Your task to perform on an android device: open device folders in google photos Image 0: 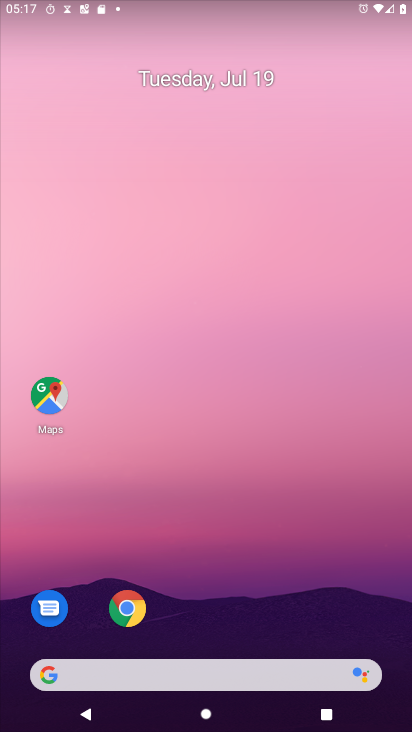
Step 0: drag from (236, 669) to (323, 214)
Your task to perform on an android device: open device folders in google photos Image 1: 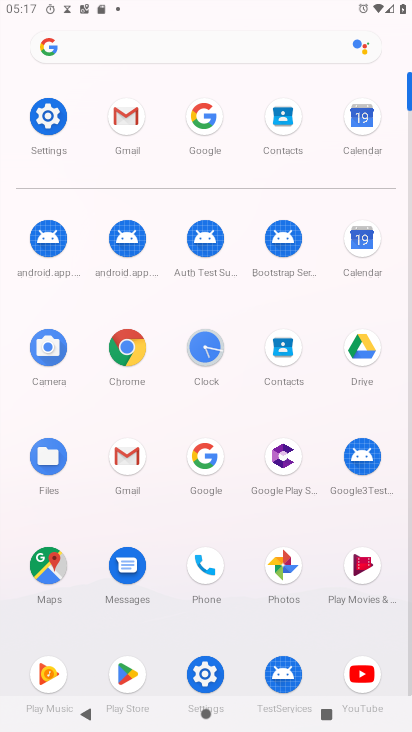
Step 1: click (283, 564)
Your task to perform on an android device: open device folders in google photos Image 2: 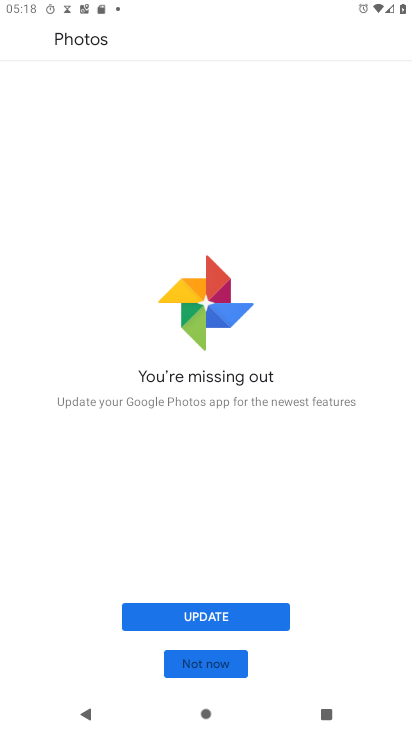
Step 2: click (201, 623)
Your task to perform on an android device: open device folders in google photos Image 3: 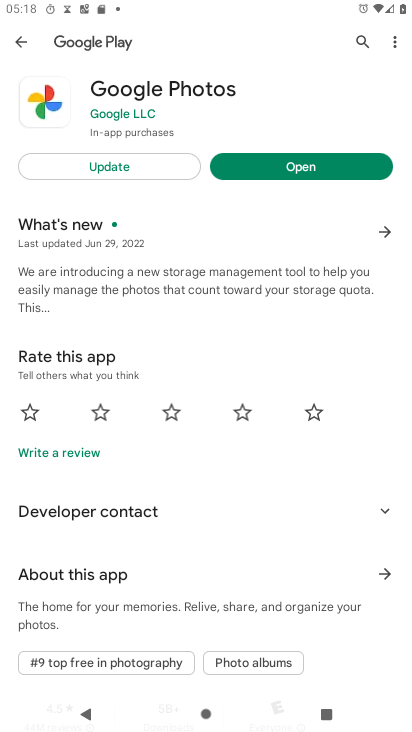
Step 3: click (114, 169)
Your task to perform on an android device: open device folders in google photos Image 4: 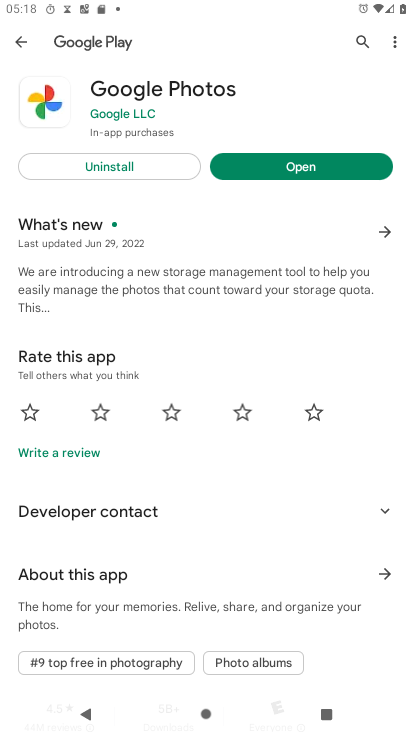
Step 4: click (301, 168)
Your task to perform on an android device: open device folders in google photos Image 5: 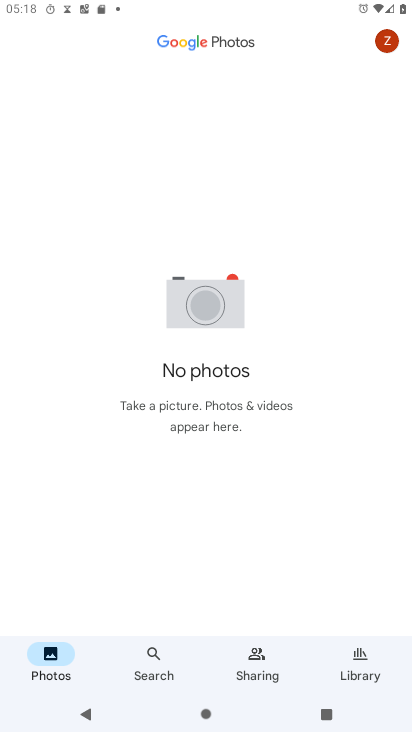
Step 5: click (389, 43)
Your task to perform on an android device: open device folders in google photos Image 6: 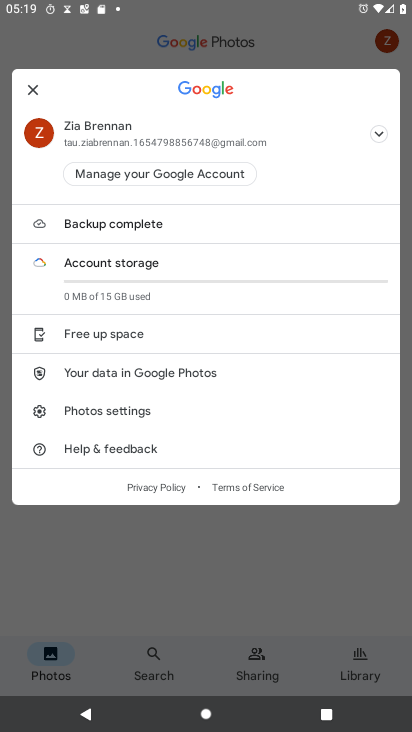
Step 6: click (96, 408)
Your task to perform on an android device: open device folders in google photos Image 7: 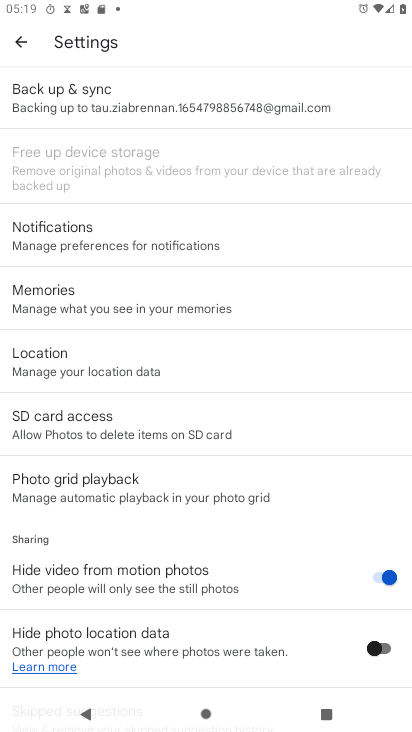
Step 7: drag from (194, 516) to (282, 357)
Your task to perform on an android device: open device folders in google photos Image 8: 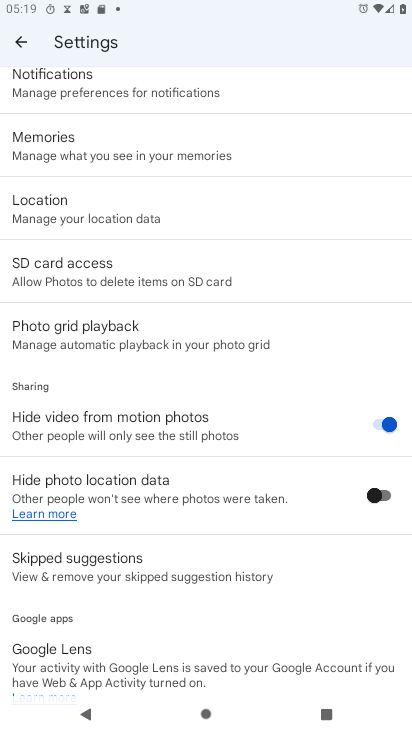
Step 8: drag from (198, 551) to (266, 343)
Your task to perform on an android device: open device folders in google photos Image 9: 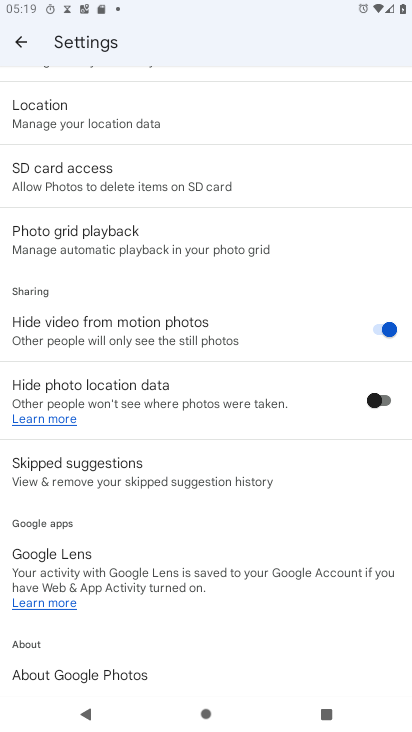
Step 9: press back button
Your task to perform on an android device: open device folders in google photos Image 10: 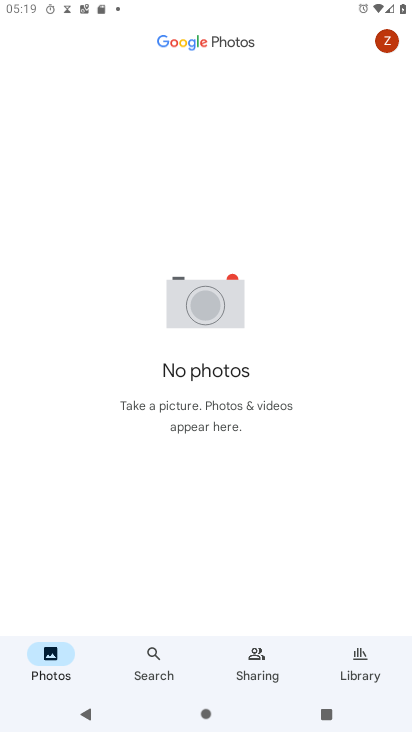
Step 10: click (161, 659)
Your task to perform on an android device: open device folders in google photos Image 11: 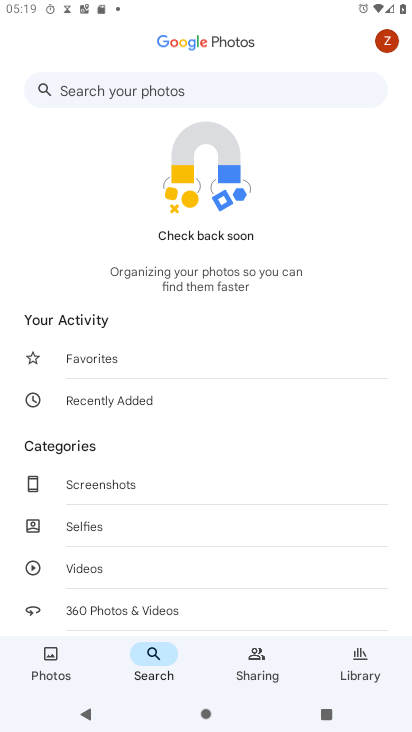
Step 11: drag from (158, 465) to (176, 364)
Your task to perform on an android device: open device folders in google photos Image 12: 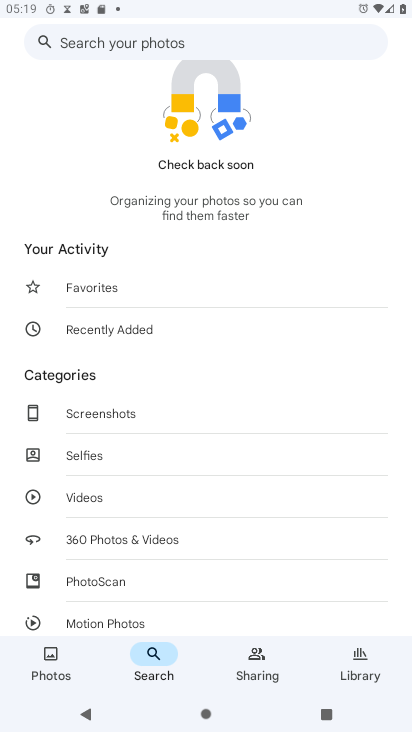
Step 12: drag from (142, 566) to (164, 483)
Your task to perform on an android device: open device folders in google photos Image 13: 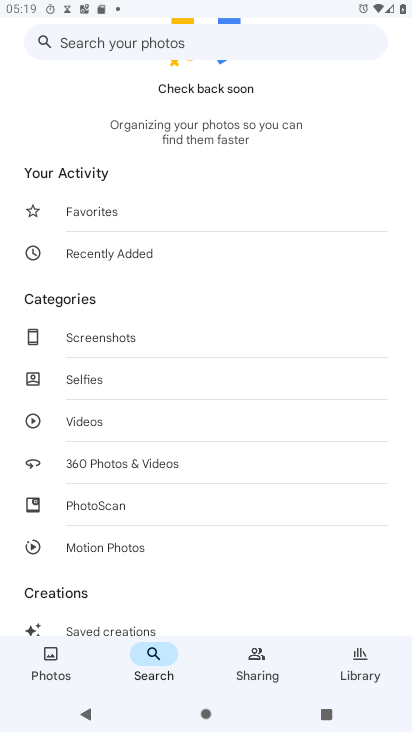
Step 13: drag from (112, 561) to (210, 418)
Your task to perform on an android device: open device folders in google photos Image 14: 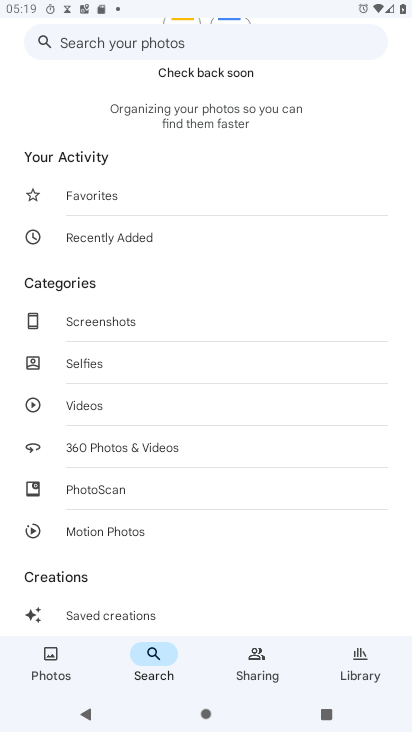
Step 14: click (264, 654)
Your task to perform on an android device: open device folders in google photos Image 15: 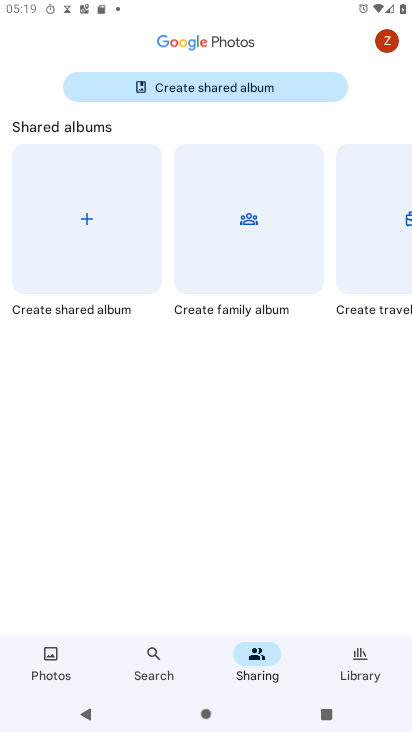
Step 15: click (360, 655)
Your task to perform on an android device: open device folders in google photos Image 16: 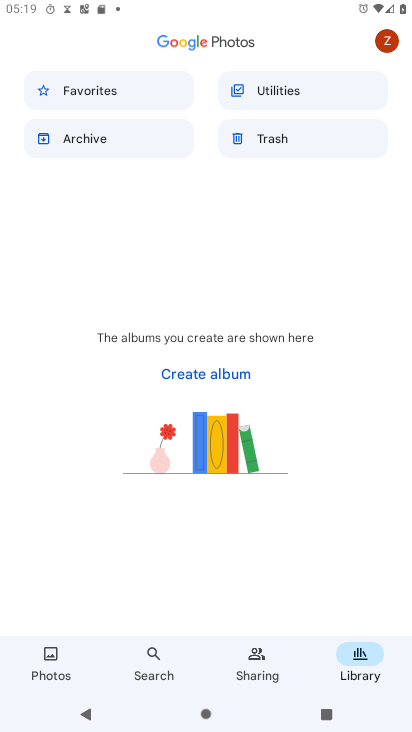
Step 16: click (270, 143)
Your task to perform on an android device: open device folders in google photos Image 17: 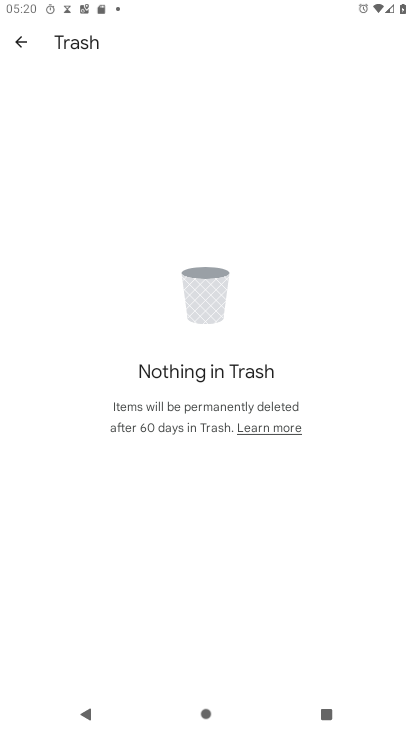
Step 17: press back button
Your task to perform on an android device: open device folders in google photos Image 18: 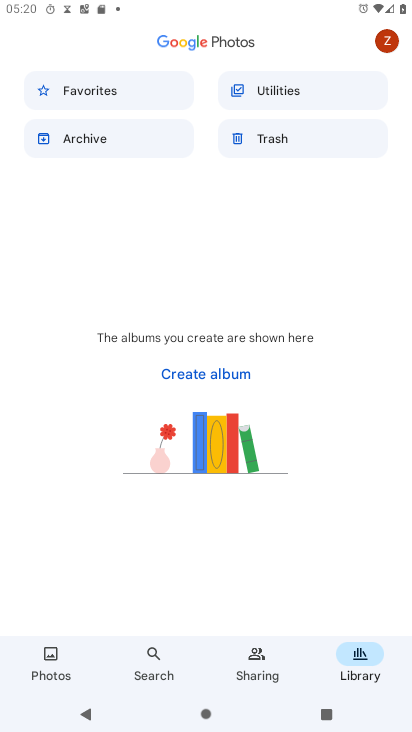
Step 18: click (101, 138)
Your task to perform on an android device: open device folders in google photos Image 19: 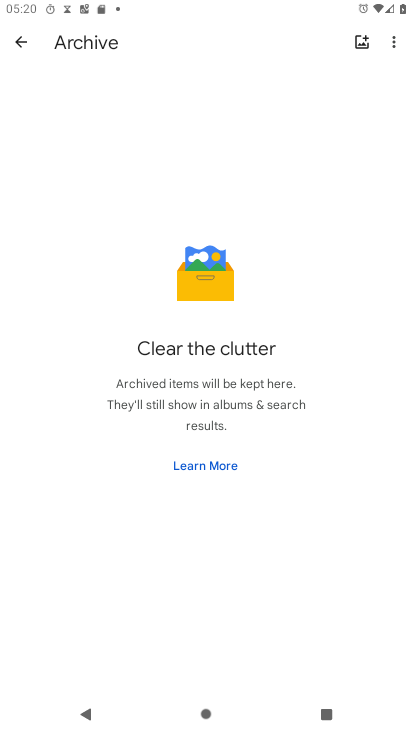
Step 19: task complete